Your task to perform on an android device: Open ESPN.com Image 0: 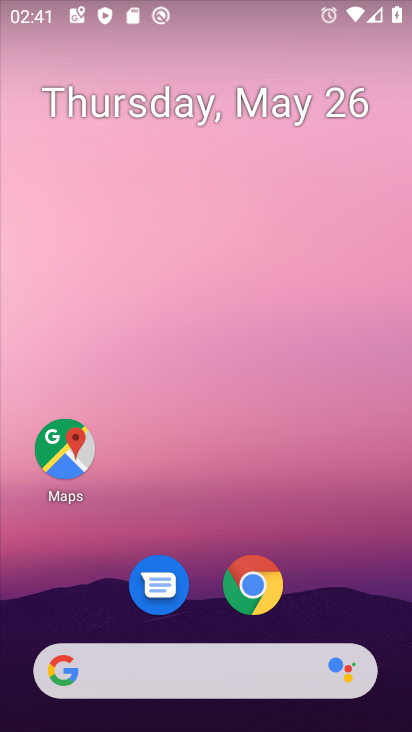
Step 0: click (287, 671)
Your task to perform on an android device: Open ESPN.com Image 1: 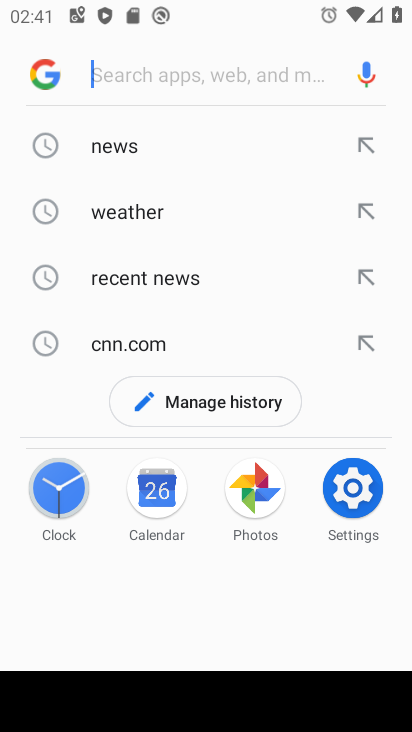
Step 1: type "espn.com"
Your task to perform on an android device: Open ESPN.com Image 2: 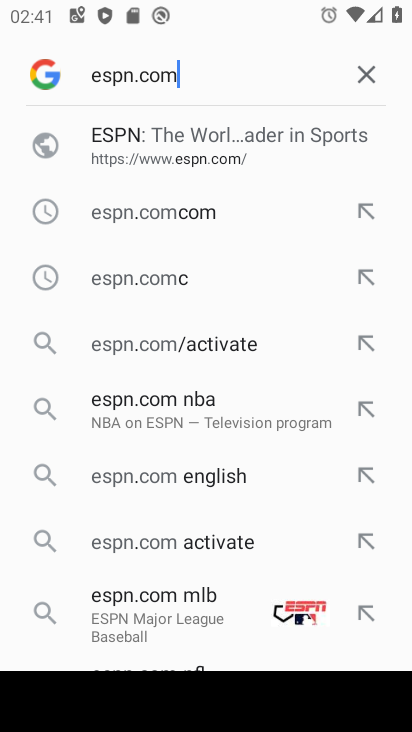
Step 2: click (138, 149)
Your task to perform on an android device: Open ESPN.com Image 3: 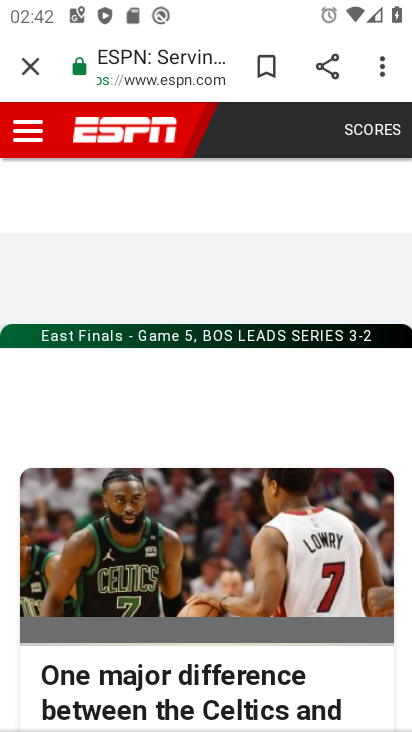
Step 3: task complete